Your task to perform on an android device: Do I have any events this weekend? Image 0: 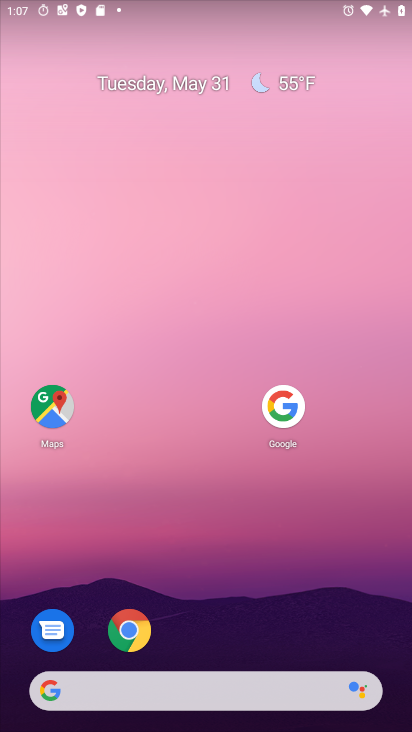
Step 0: drag from (218, 594) to (323, 184)
Your task to perform on an android device: Do I have any events this weekend? Image 1: 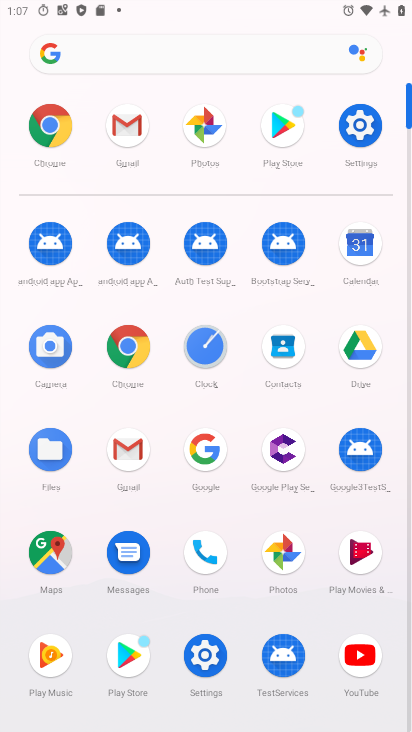
Step 1: click (359, 240)
Your task to perform on an android device: Do I have any events this weekend? Image 2: 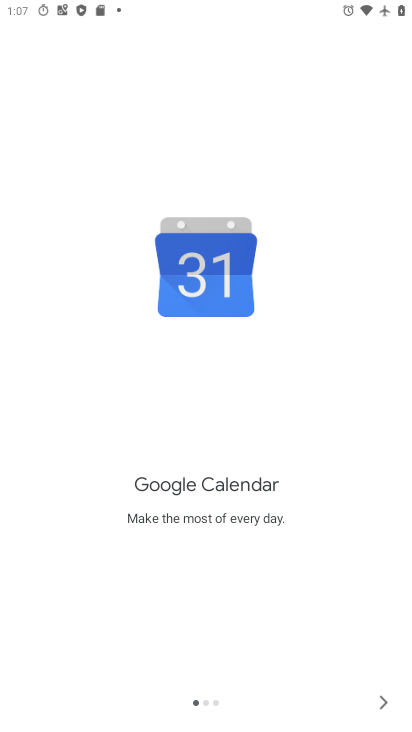
Step 2: click (379, 699)
Your task to perform on an android device: Do I have any events this weekend? Image 3: 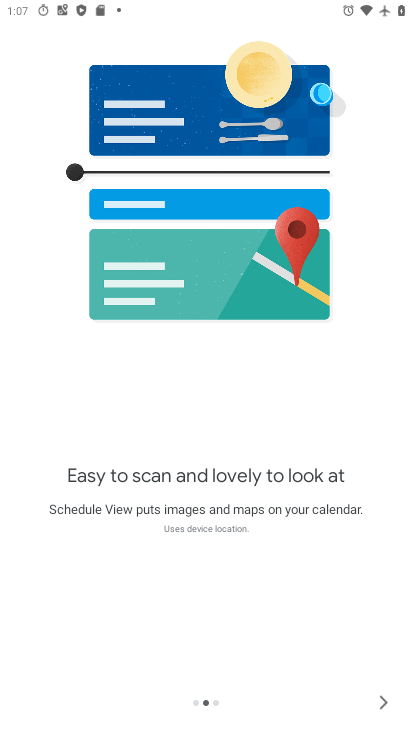
Step 3: click (387, 693)
Your task to perform on an android device: Do I have any events this weekend? Image 4: 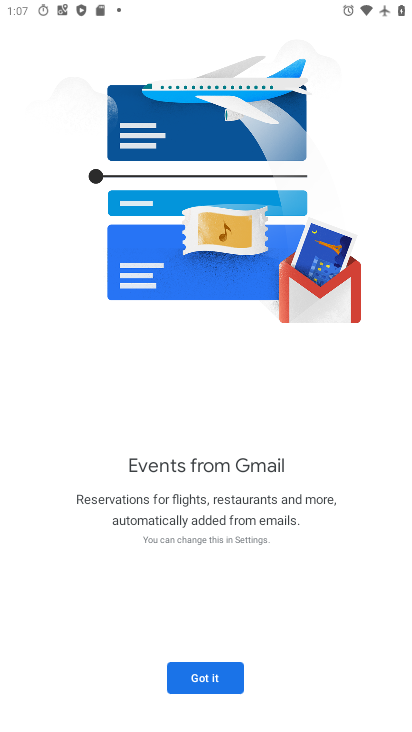
Step 4: click (197, 681)
Your task to perform on an android device: Do I have any events this weekend? Image 5: 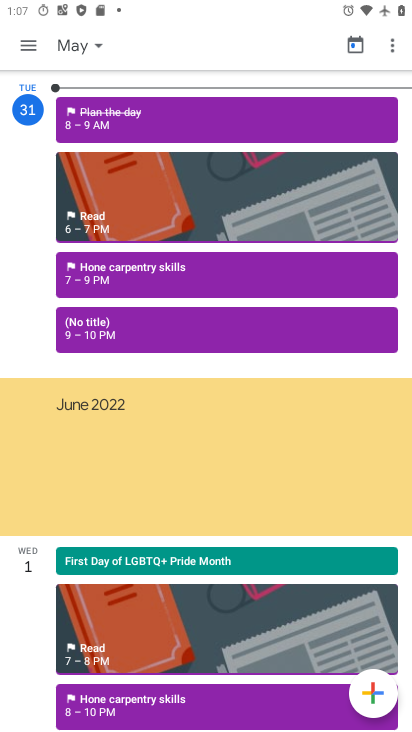
Step 5: click (68, 50)
Your task to perform on an android device: Do I have any events this weekend? Image 6: 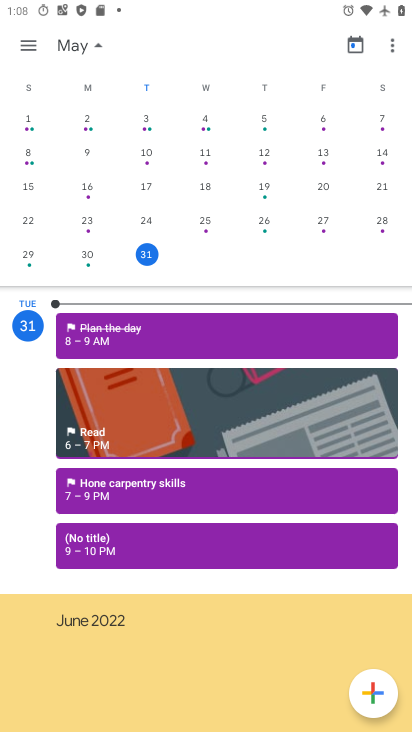
Step 6: drag from (302, 189) to (76, 195)
Your task to perform on an android device: Do I have any events this weekend? Image 7: 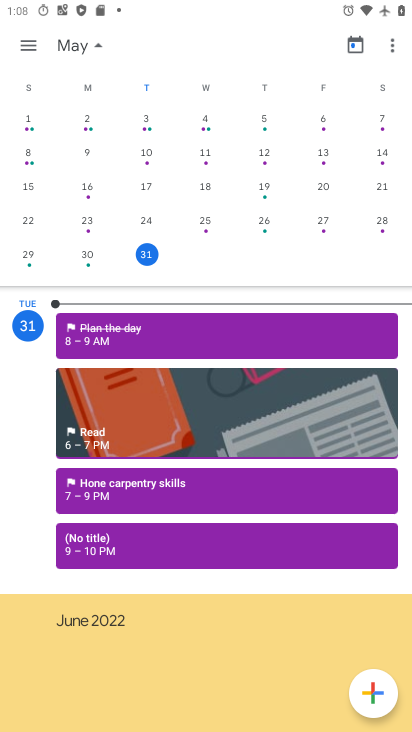
Step 7: drag from (357, 157) to (93, 159)
Your task to perform on an android device: Do I have any events this weekend? Image 8: 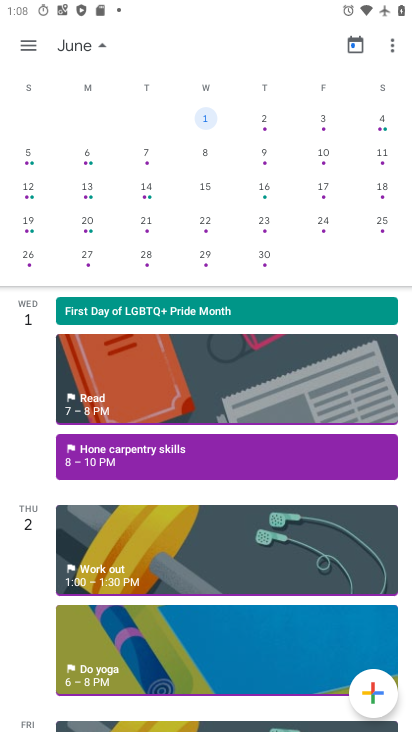
Step 8: click (389, 126)
Your task to perform on an android device: Do I have any events this weekend? Image 9: 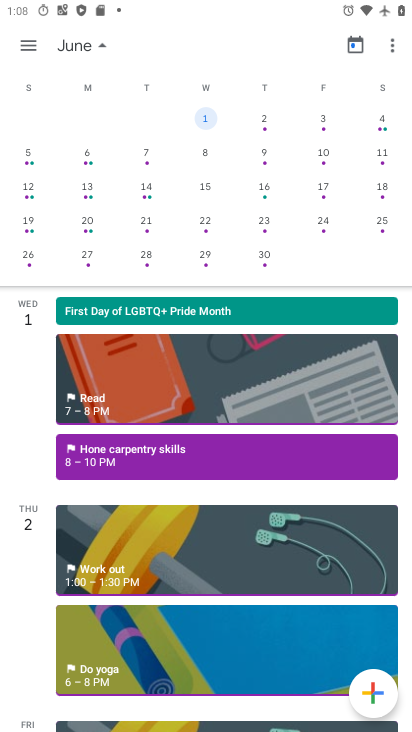
Step 9: click (383, 123)
Your task to perform on an android device: Do I have any events this weekend? Image 10: 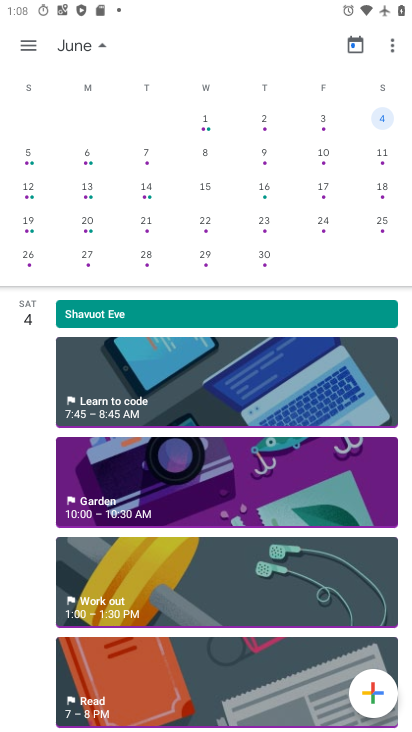
Step 10: click (25, 42)
Your task to perform on an android device: Do I have any events this weekend? Image 11: 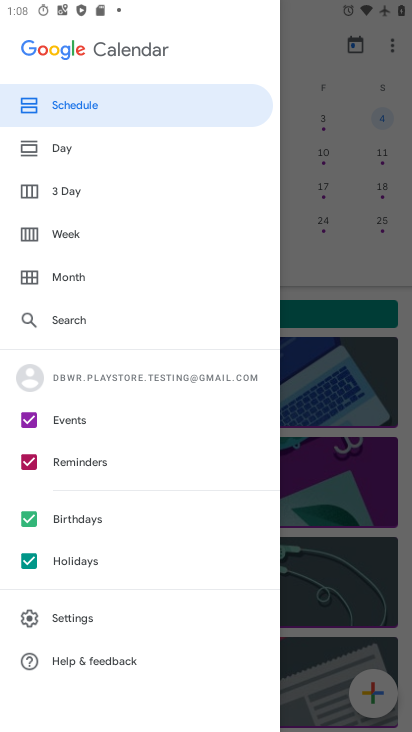
Step 11: click (56, 155)
Your task to perform on an android device: Do I have any events this weekend? Image 12: 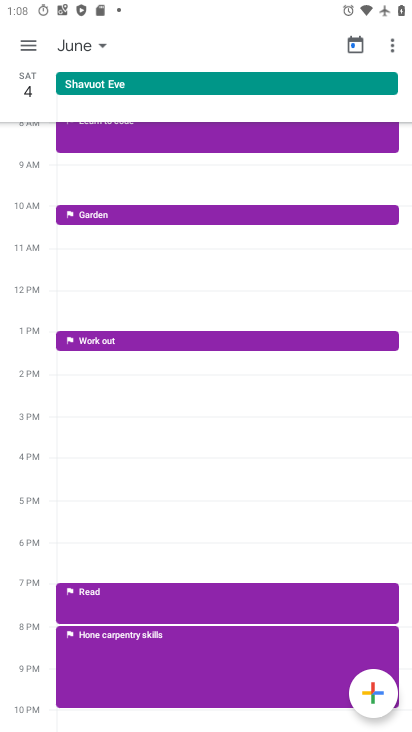
Step 12: click (24, 51)
Your task to perform on an android device: Do I have any events this weekend? Image 13: 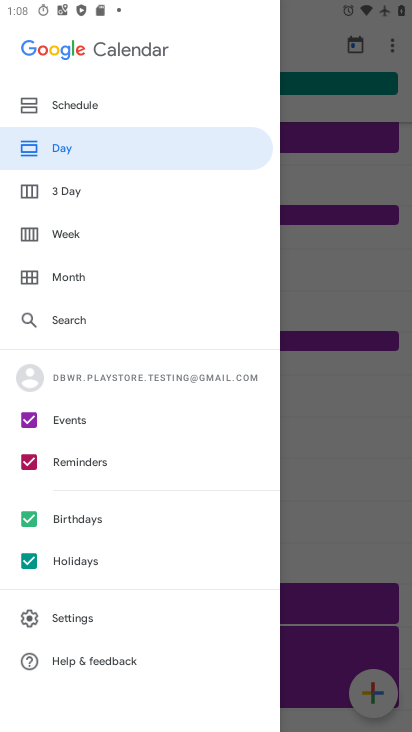
Step 13: click (77, 102)
Your task to perform on an android device: Do I have any events this weekend? Image 14: 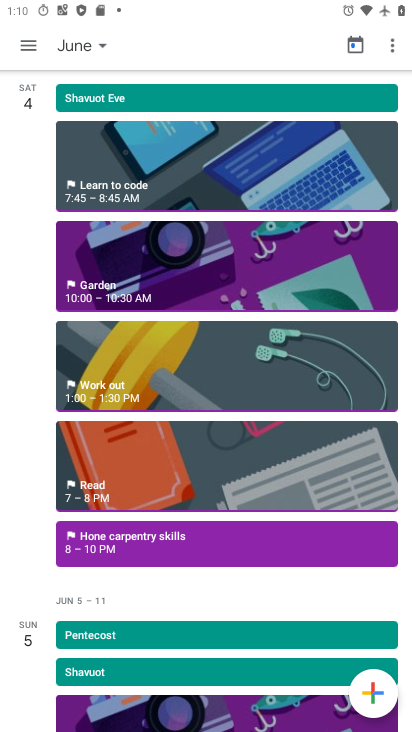
Step 14: click (205, 284)
Your task to perform on an android device: Do I have any events this weekend? Image 15: 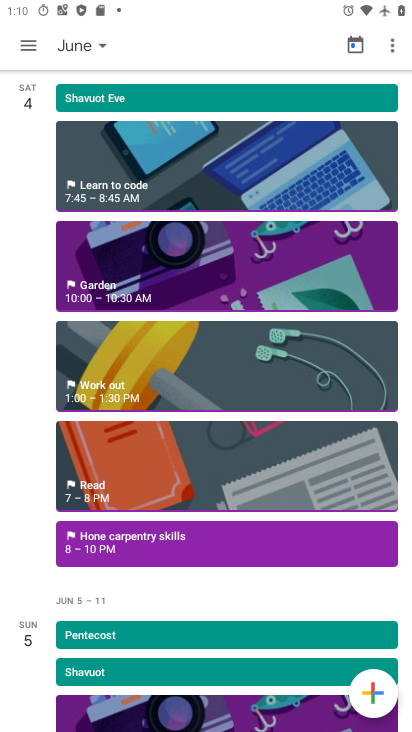
Step 15: click (105, 283)
Your task to perform on an android device: Do I have any events this weekend? Image 16: 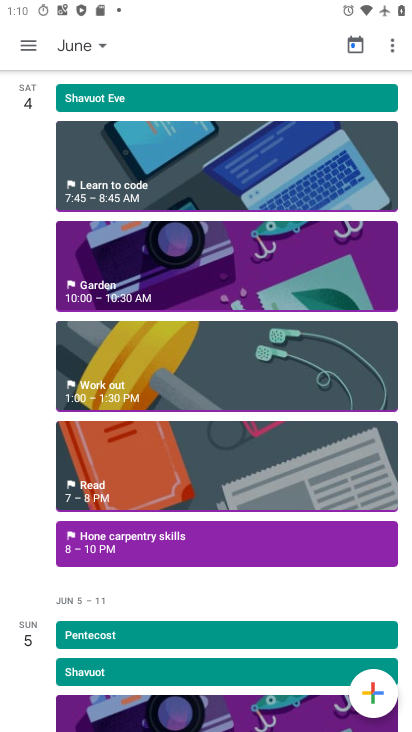
Step 16: click (128, 268)
Your task to perform on an android device: Do I have any events this weekend? Image 17: 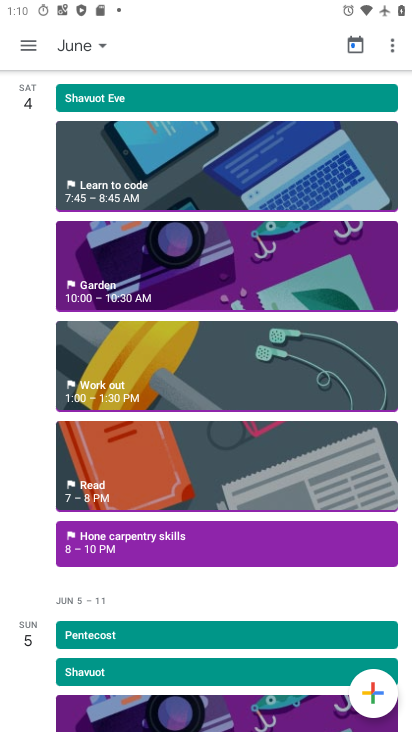
Step 17: click (252, 268)
Your task to perform on an android device: Do I have any events this weekend? Image 18: 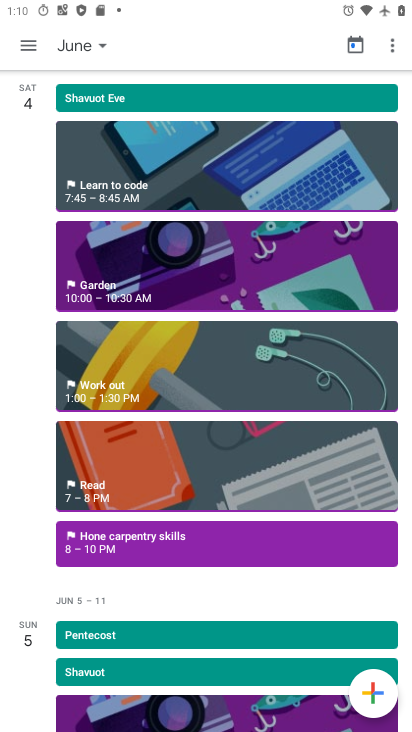
Step 18: click (138, 551)
Your task to perform on an android device: Do I have any events this weekend? Image 19: 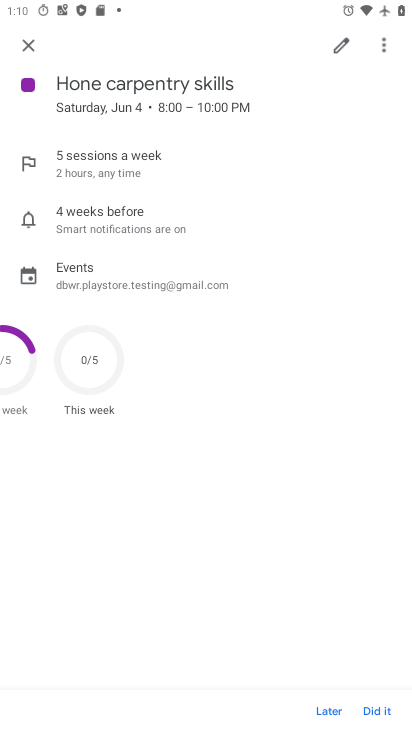
Step 19: task complete